Your task to perform on an android device: Open Google Maps Image 0: 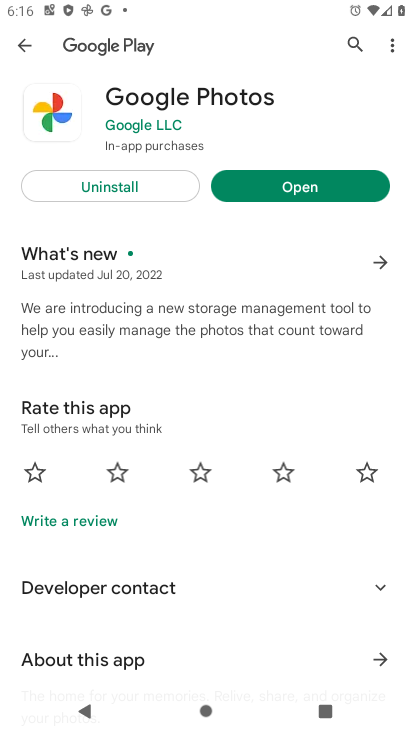
Step 0: press home button
Your task to perform on an android device: Open Google Maps Image 1: 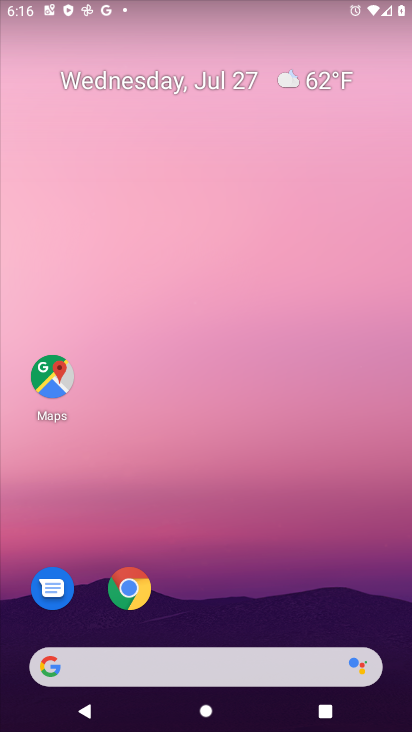
Step 1: click (48, 384)
Your task to perform on an android device: Open Google Maps Image 2: 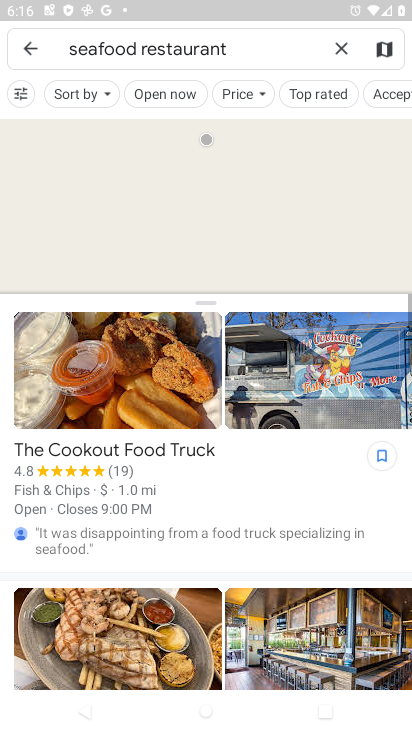
Step 2: task complete